Your task to perform on an android device: turn on showing notifications on the lock screen Image 0: 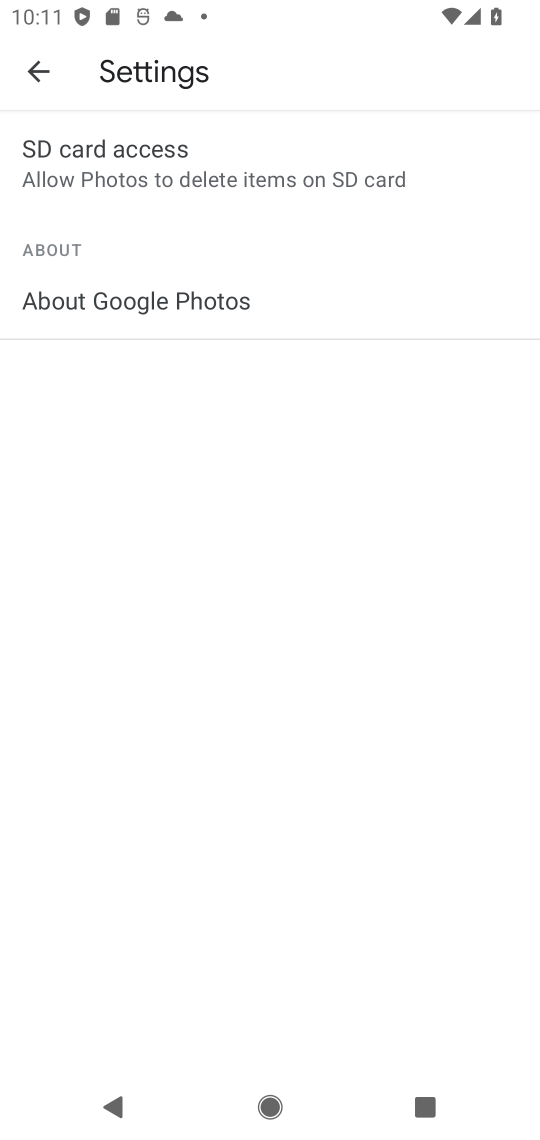
Step 0: press home button
Your task to perform on an android device: turn on showing notifications on the lock screen Image 1: 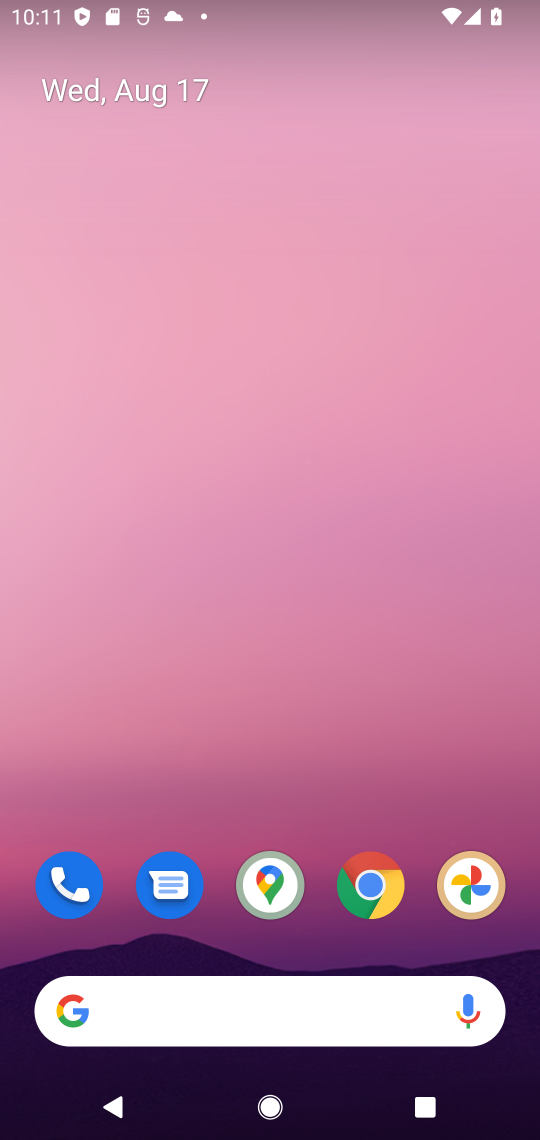
Step 1: drag from (414, 941) to (366, 263)
Your task to perform on an android device: turn on showing notifications on the lock screen Image 2: 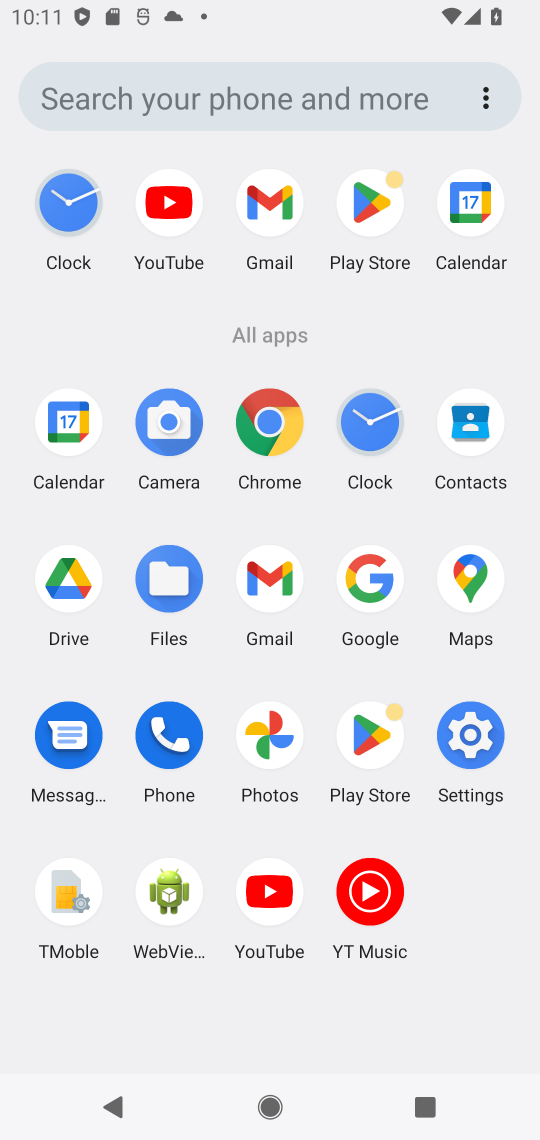
Step 2: click (469, 738)
Your task to perform on an android device: turn on showing notifications on the lock screen Image 3: 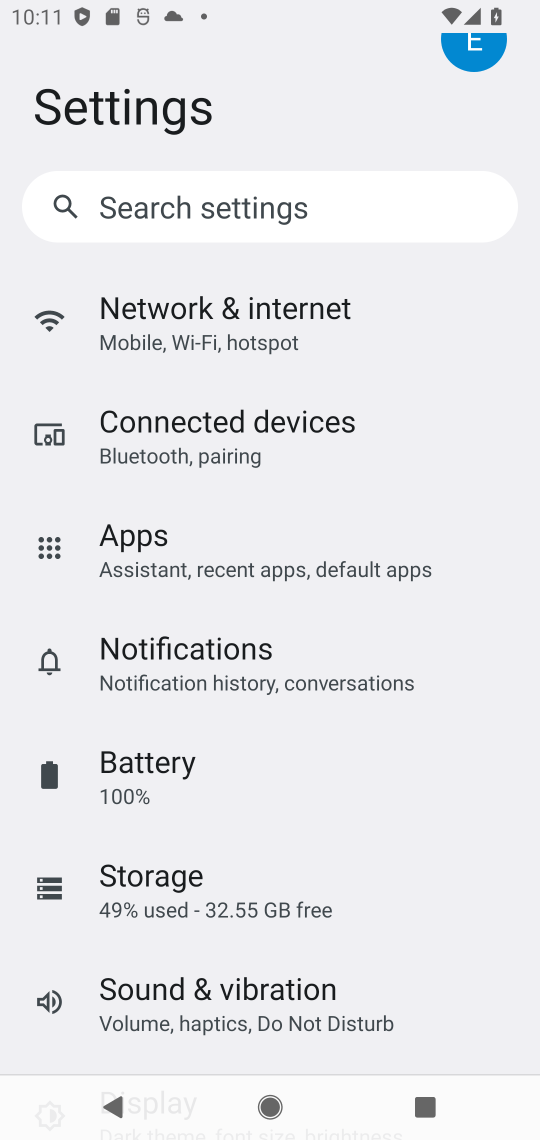
Step 3: click (180, 670)
Your task to perform on an android device: turn on showing notifications on the lock screen Image 4: 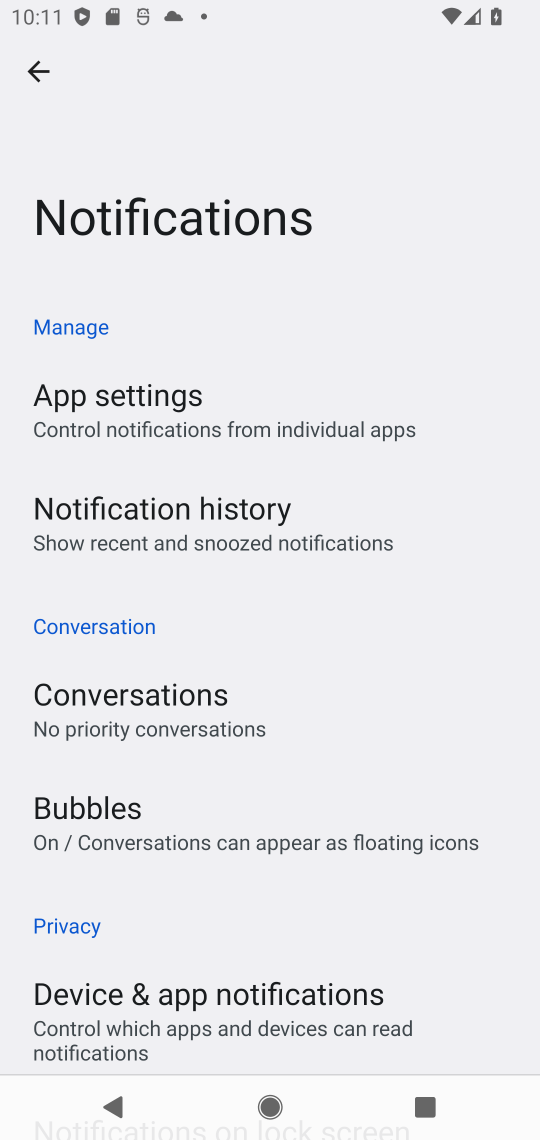
Step 4: drag from (346, 913) to (382, 223)
Your task to perform on an android device: turn on showing notifications on the lock screen Image 5: 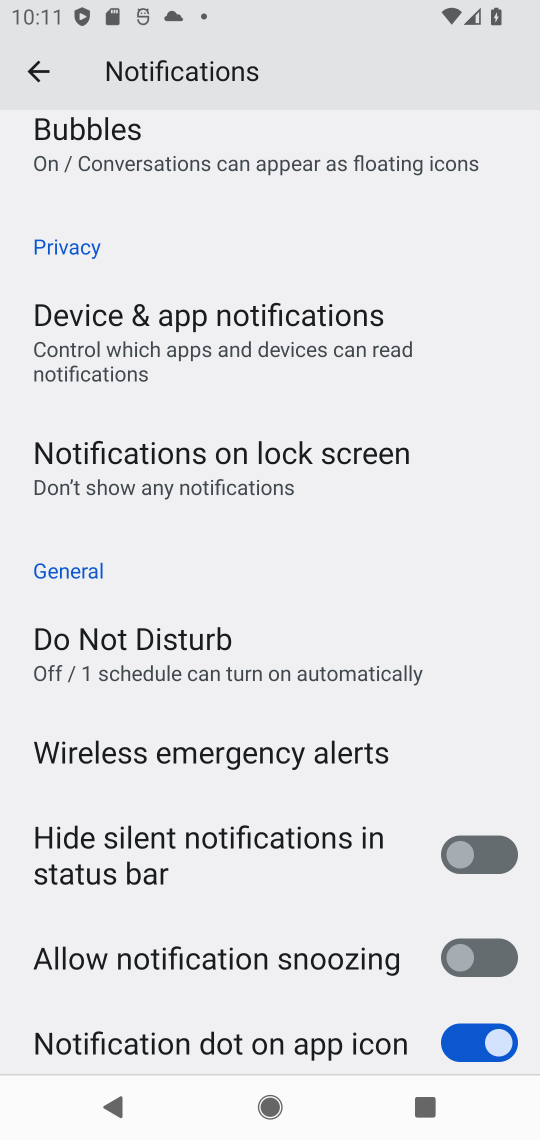
Step 5: click (133, 461)
Your task to perform on an android device: turn on showing notifications on the lock screen Image 6: 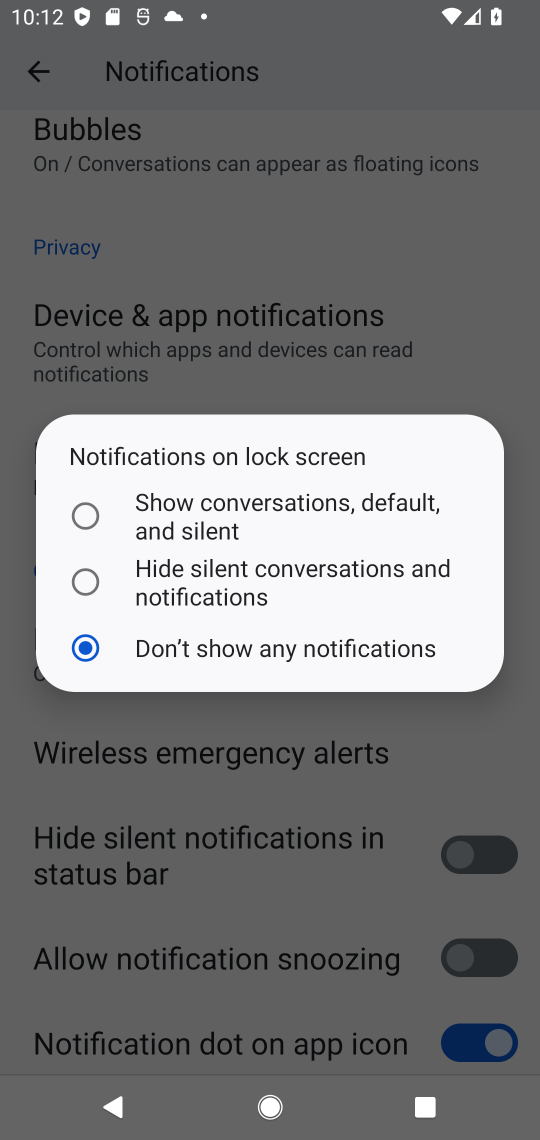
Step 6: click (83, 508)
Your task to perform on an android device: turn on showing notifications on the lock screen Image 7: 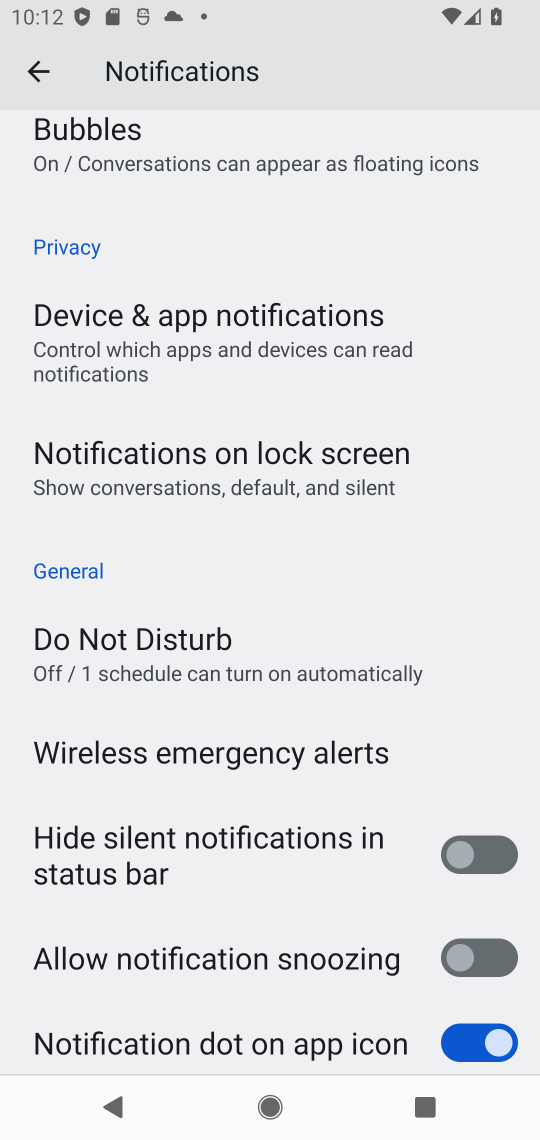
Step 7: task complete